Your task to perform on an android device: empty trash in the gmail app Image 0: 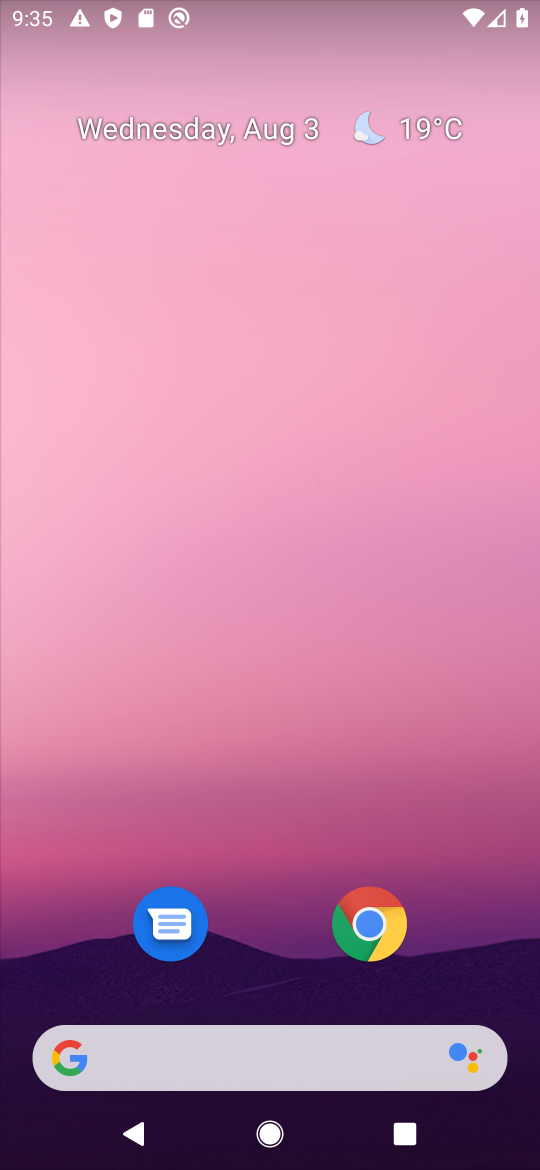
Step 0: drag from (277, 959) to (310, 169)
Your task to perform on an android device: empty trash in the gmail app Image 1: 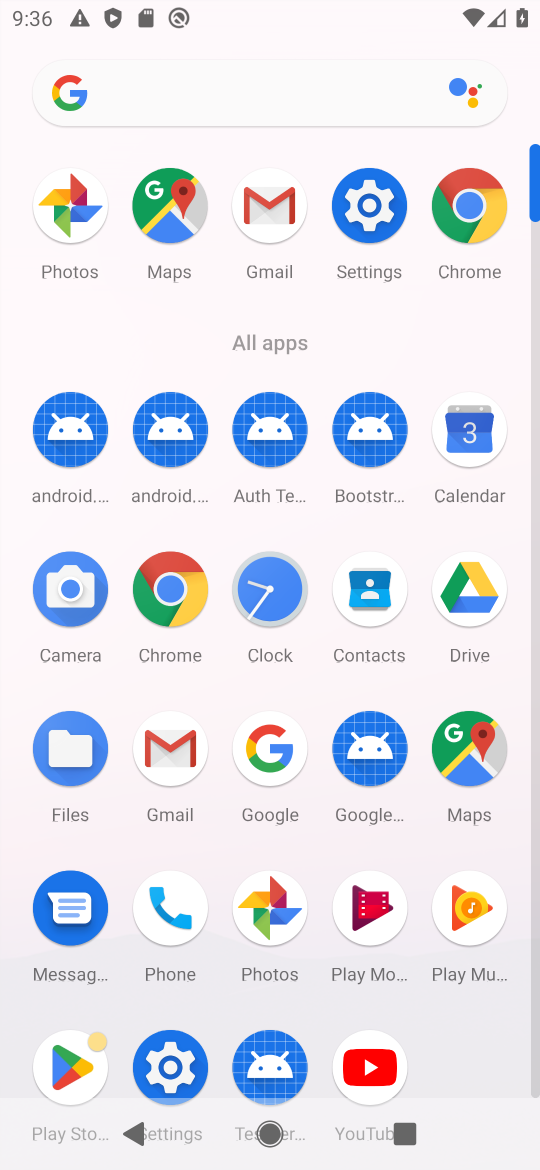
Step 1: click (167, 736)
Your task to perform on an android device: empty trash in the gmail app Image 2: 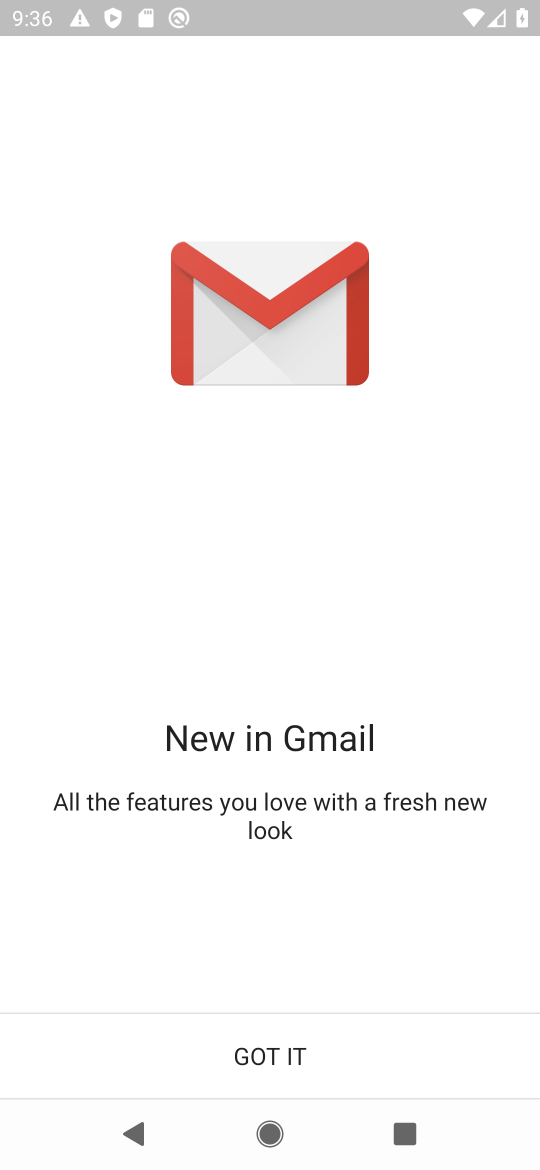
Step 2: click (246, 1054)
Your task to perform on an android device: empty trash in the gmail app Image 3: 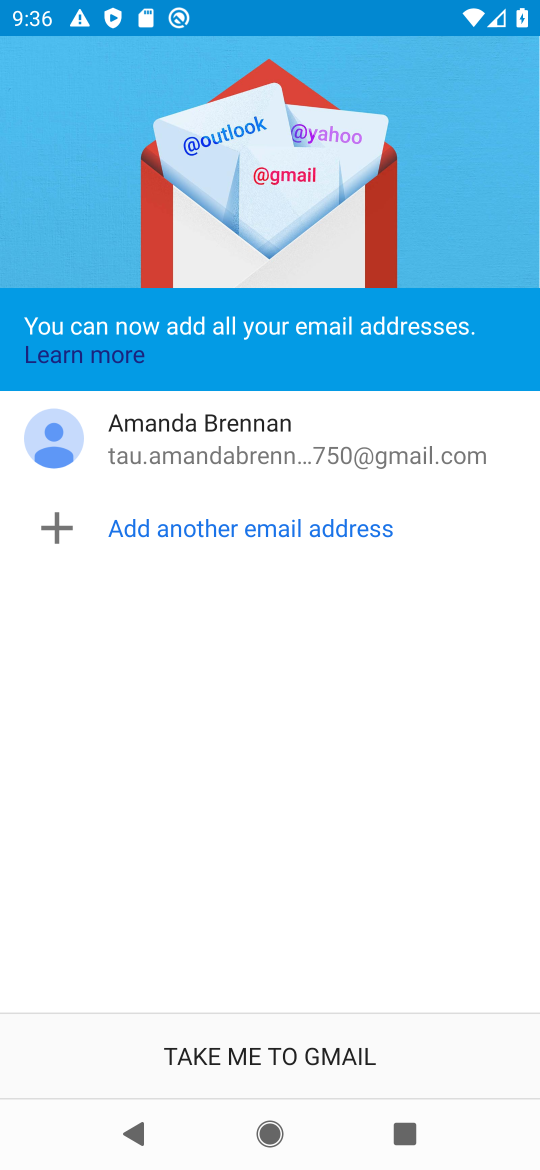
Step 3: click (265, 1071)
Your task to perform on an android device: empty trash in the gmail app Image 4: 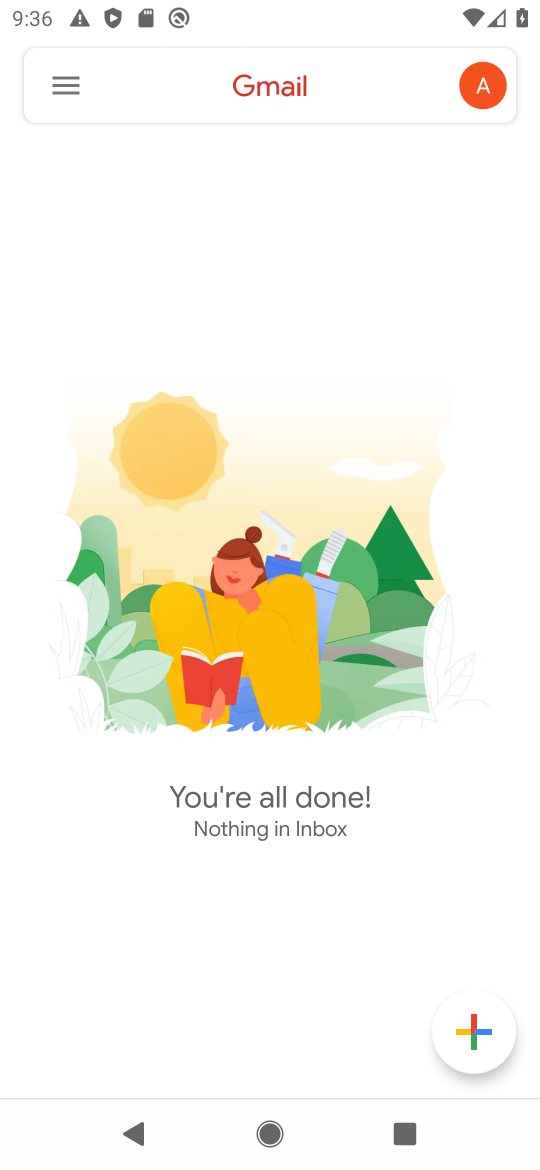
Step 4: click (47, 72)
Your task to perform on an android device: empty trash in the gmail app Image 5: 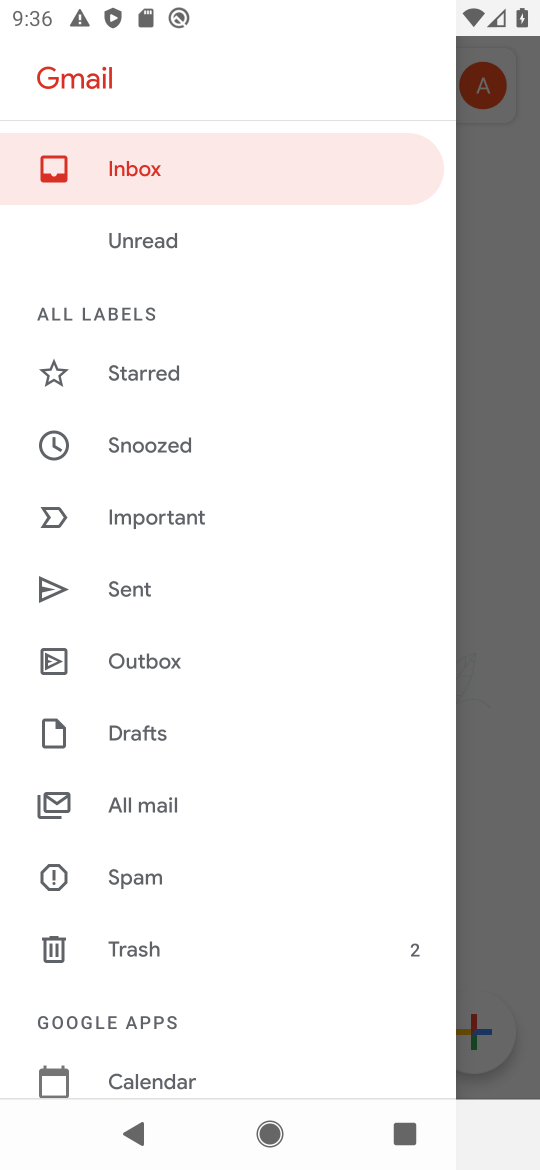
Step 5: click (202, 945)
Your task to perform on an android device: empty trash in the gmail app Image 6: 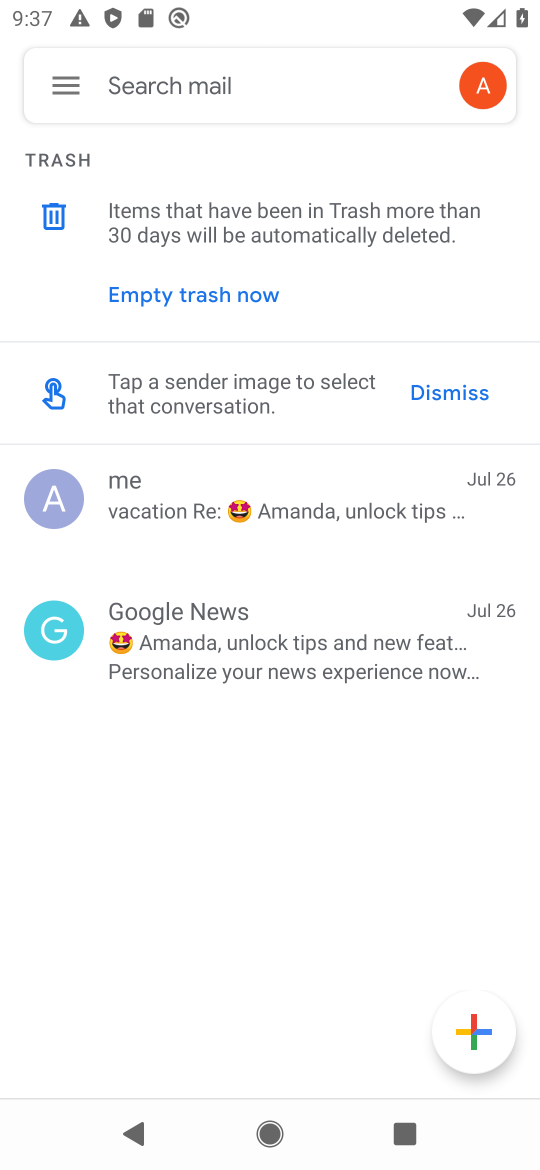
Step 6: click (149, 297)
Your task to perform on an android device: empty trash in the gmail app Image 7: 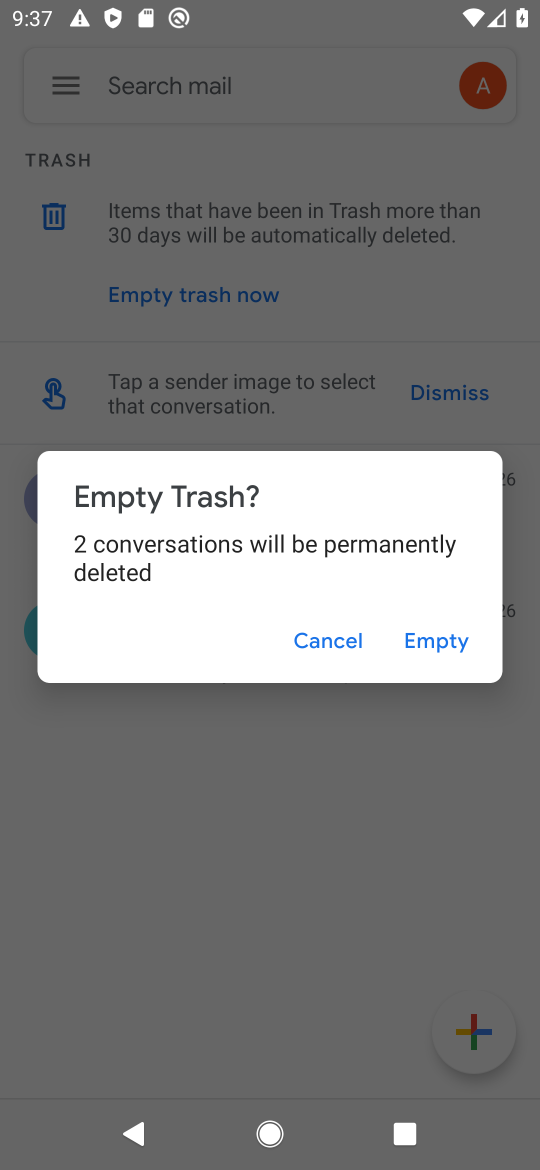
Step 7: click (442, 641)
Your task to perform on an android device: empty trash in the gmail app Image 8: 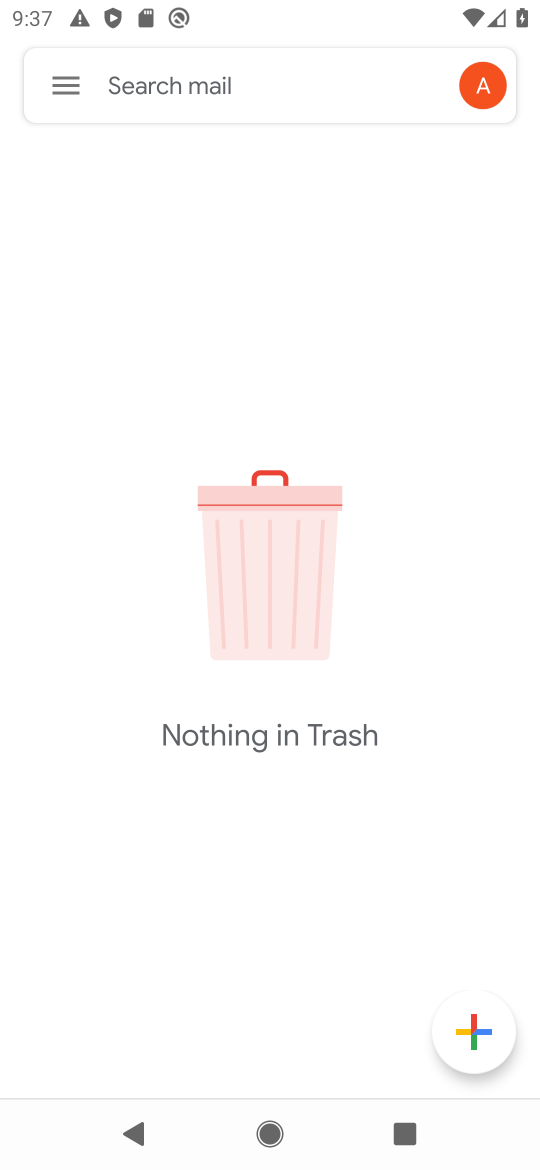
Step 8: task complete